Your task to perform on an android device: turn off smart reply in the gmail app Image 0: 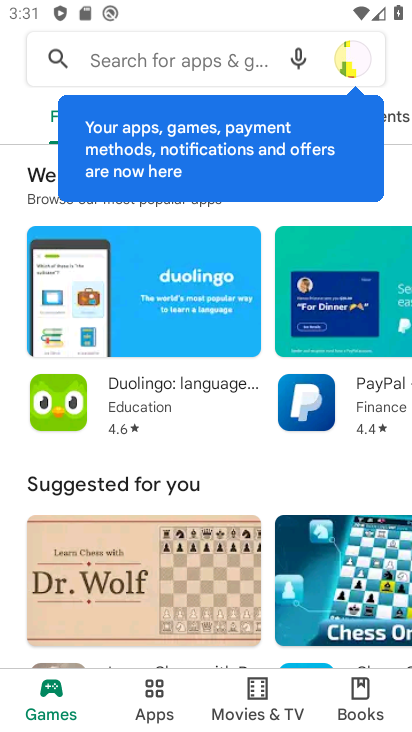
Step 0: press home button
Your task to perform on an android device: turn off smart reply in the gmail app Image 1: 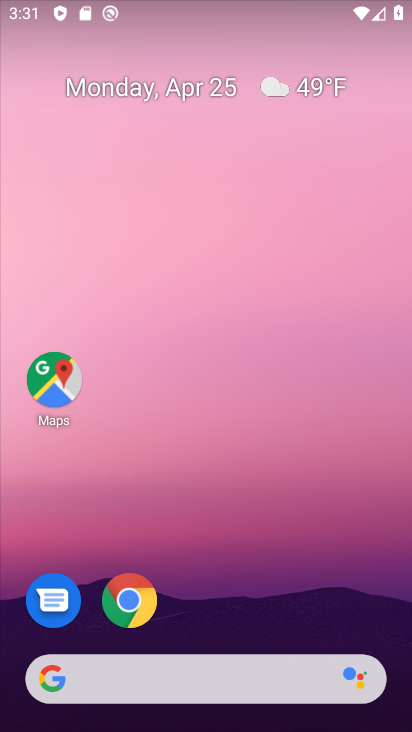
Step 1: drag from (257, 597) to (173, 27)
Your task to perform on an android device: turn off smart reply in the gmail app Image 2: 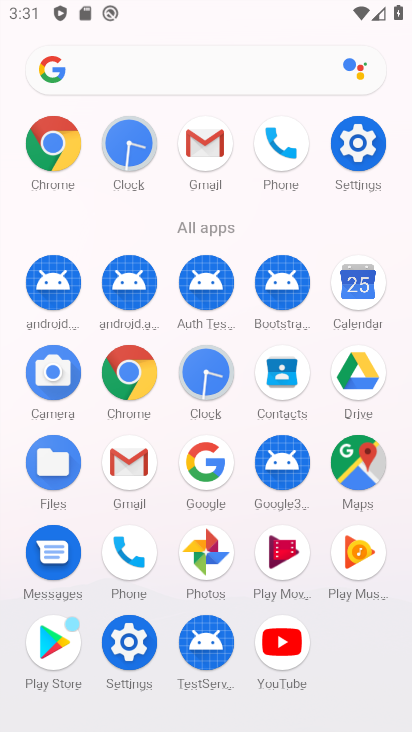
Step 2: click (199, 148)
Your task to perform on an android device: turn off smart reply in the gmail app Image 3: 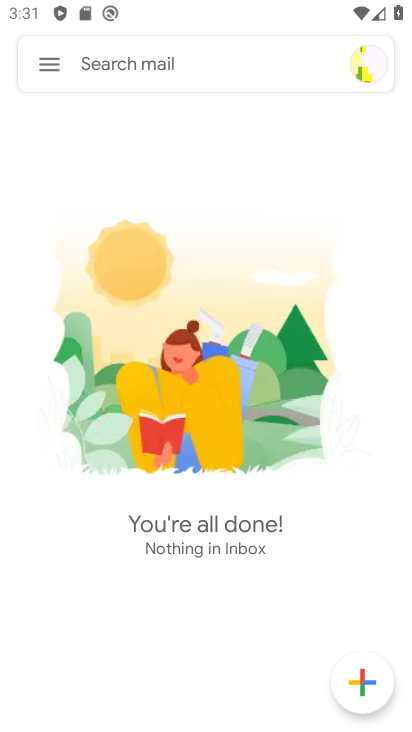
Step 3: click (45, 55)
Your task to perform on an android device: turn off smart reply in the gmail app Image 4: 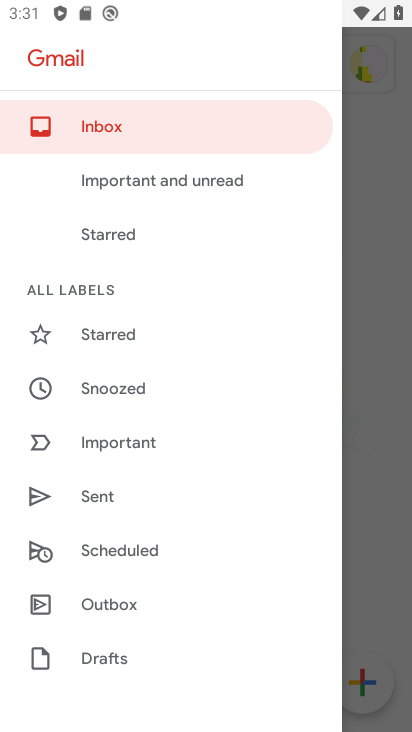
Step 4: drag from (217, 624) to (229, 117)
Your task to perform on an android device: turn off smart reply in the gmail app Image 5: 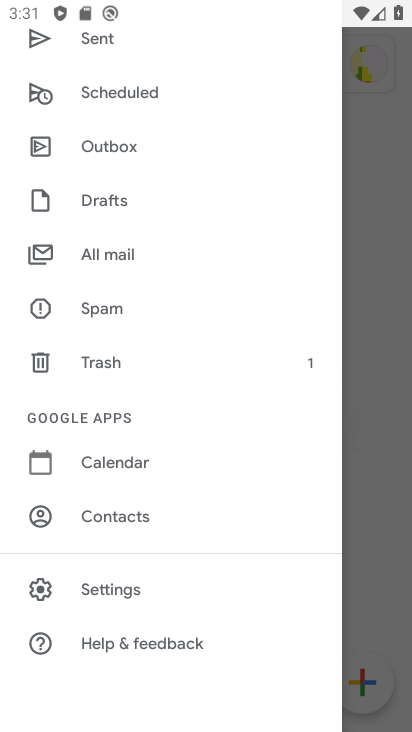
Step 5: click (107, 586)
Your task to perform on an android device: turn off smart reply in the gmail app Image 6: 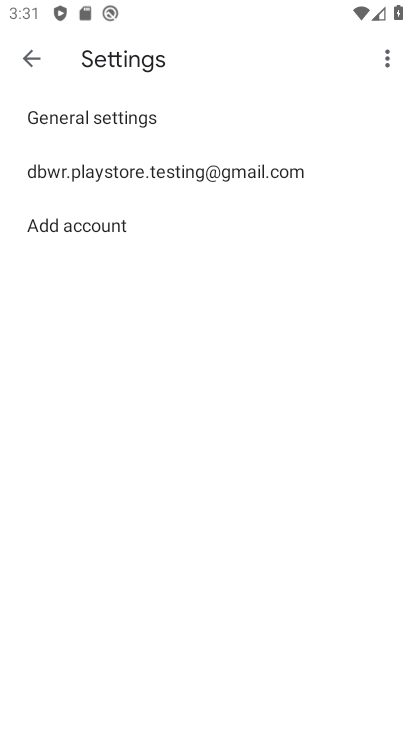
Step 6: click (245, 167)
Your task to perform on an android device: turn off smart reply in the gmail app Image 7: 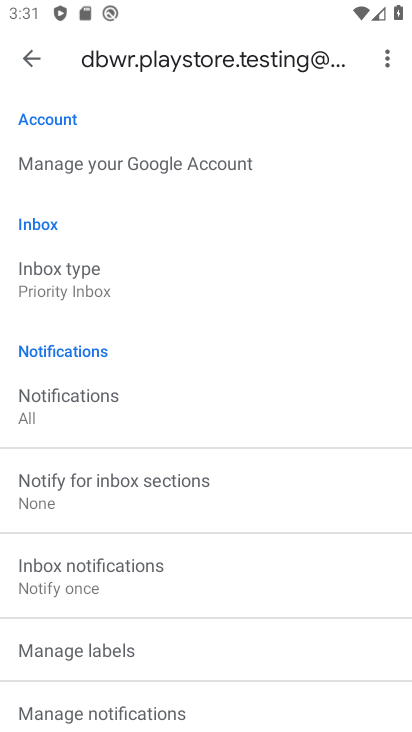
Step 7: drag from (246, 573) to (274, 152)
Your task to perform on an android device: turn off smart reply in the gmail app Image 8: 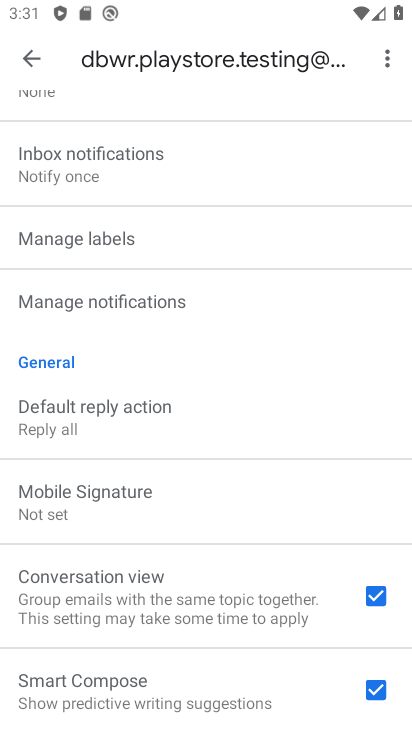
Step 8: drag from (254, 638) to (291, 273)
Your task to perform on an android device: turn off smart reply in the gmail app Image 9: 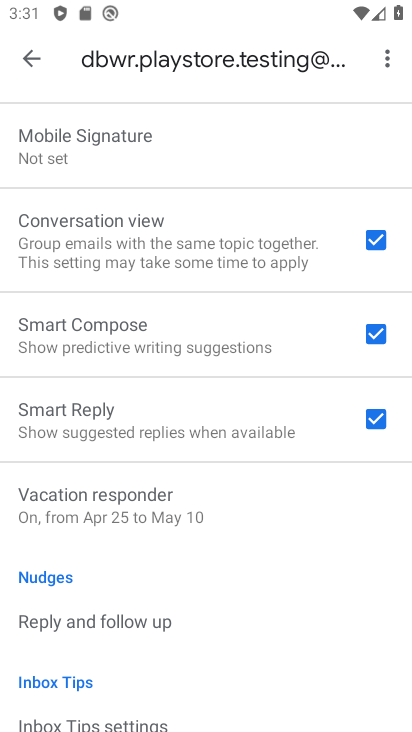
Step 9: click (374, 411)
Your task to perform on an android device: turn off smart reply in the gmail app Image 10: 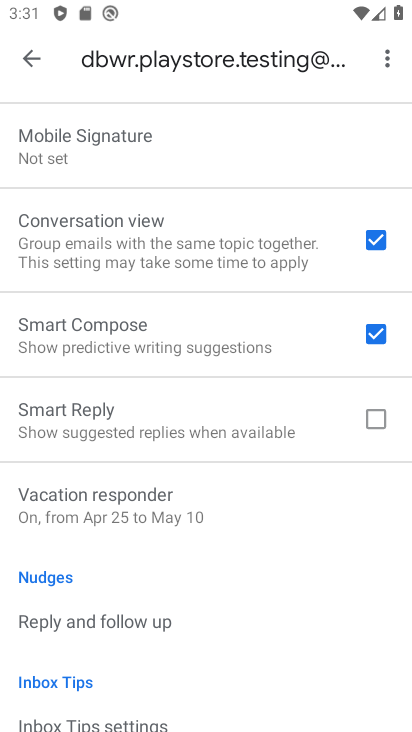
Step 10: task complete